Your task to perform on an android device: toggle show notifications on the lock screen Image 0: 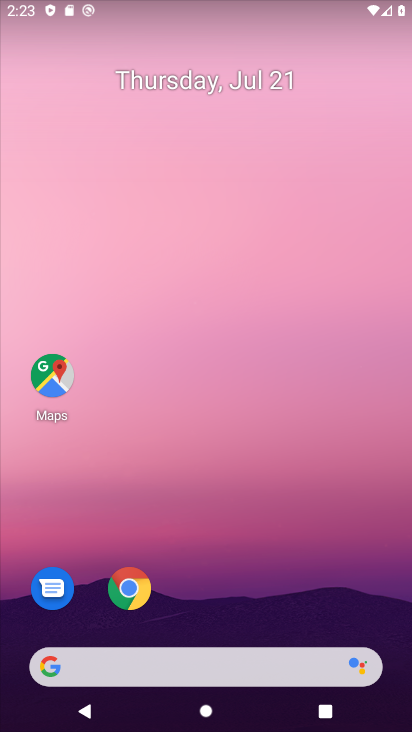
Step 0: drag from (268, 575) to (160, 32)
Your task to perform on an android device: toggle show notifications on the lock screen Image 1: 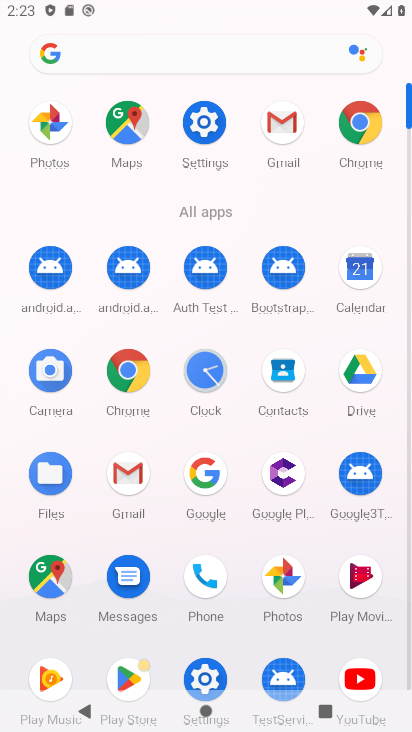
Step 1: click (201, 129)
Your task to perform on an android device: toggle show notifications on the lock screen Image 2: 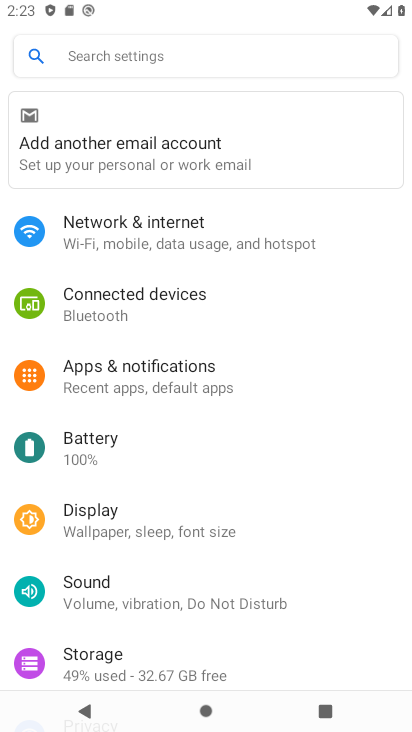
Step 2: click (175, 363)
Your task to perform on an android device: toggle show notifications on the lock screen Image 3: 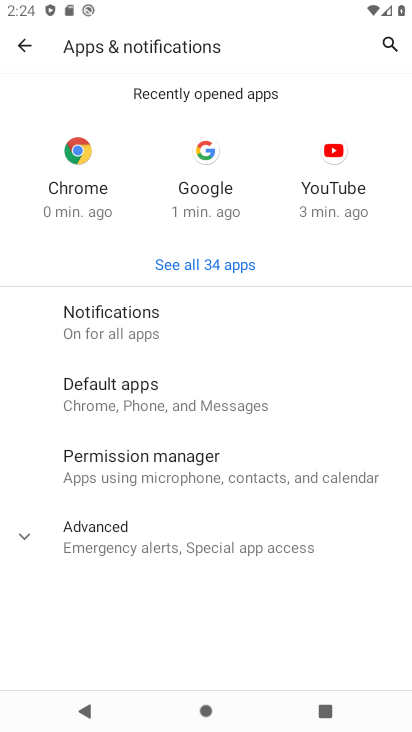
Step 3: click (134, 309)
Your task to perform on an android device: toggle show notifications on the lock screen Image 4: 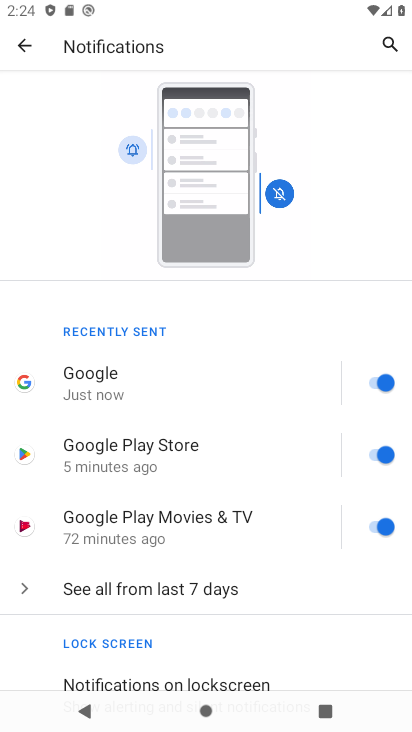
Step 4: click (197, 683)
Your task to perform on an android device: toggle show notifications on the lock screen Image 5: 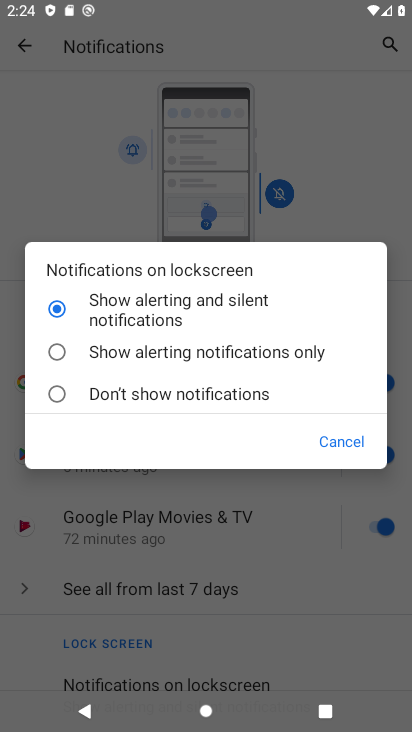
Step 5: click (58, 397)
Your task to perform on an android device: toggle show notifications on the lock screen Image 6: 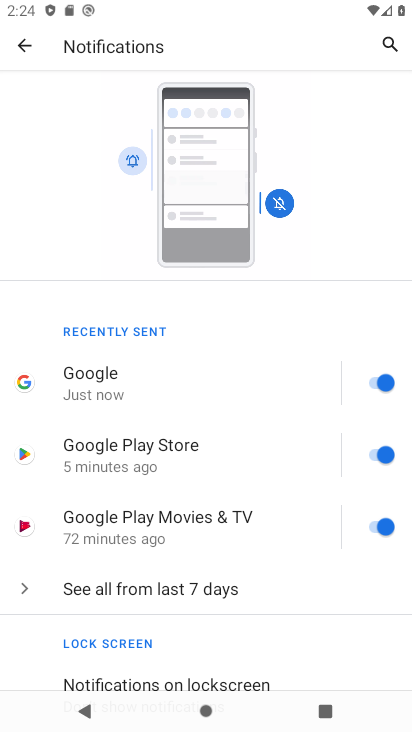
Step 6: task complete